Your task to perform on an android device: turn pop-ups off in chrome Image 0: 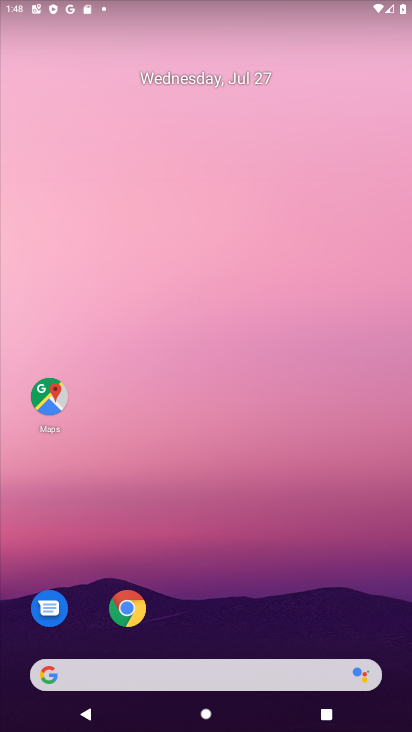
Step 0: click (124, 614)
Your task to perform on an android device: turn pop-ups off in chrome Image 1: 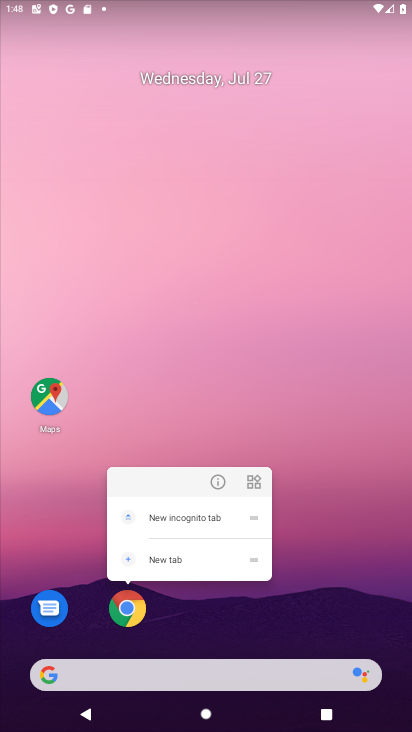
Step 1: click (124, 613)
Your task to perform on an android device: turn pop-ups off in chrome Image 2: 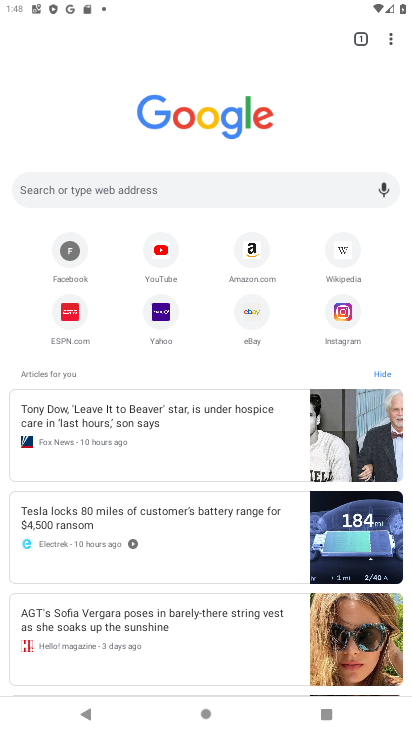
Step 2: click (390, 36)
Your task to perform on an android device: turn pop-ups off in chrome Image 3: 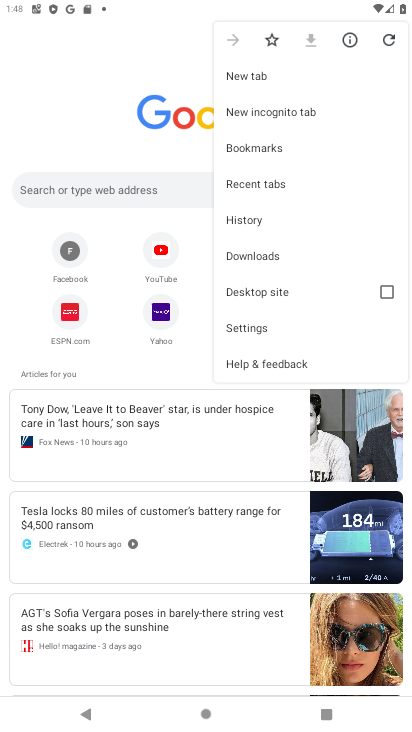
Step 3: click (256, 327)
Your task to perform on an android device: turn pop-ups off in chrome Image 4: 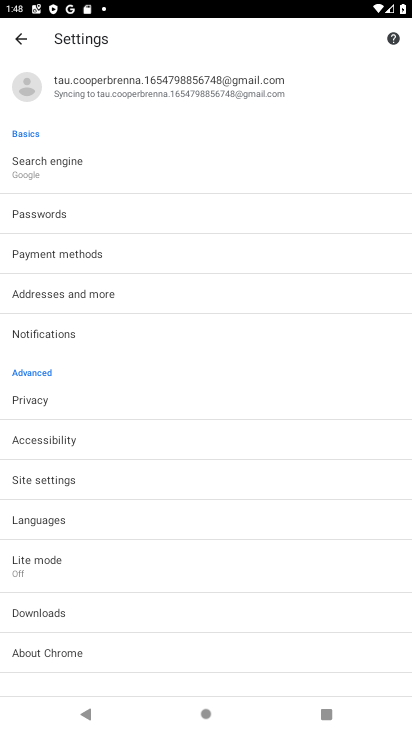
Step 4: click (72, 488)
Your task to perform on an android device: turn pop-ups off in chrome Image 5: 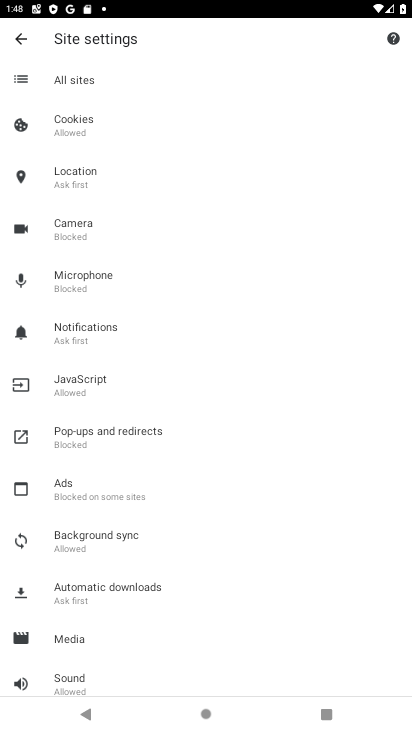
Step 5: click (85, 442)
Your task to perform on an android device: turn pop-ups off in chrome Image 6: 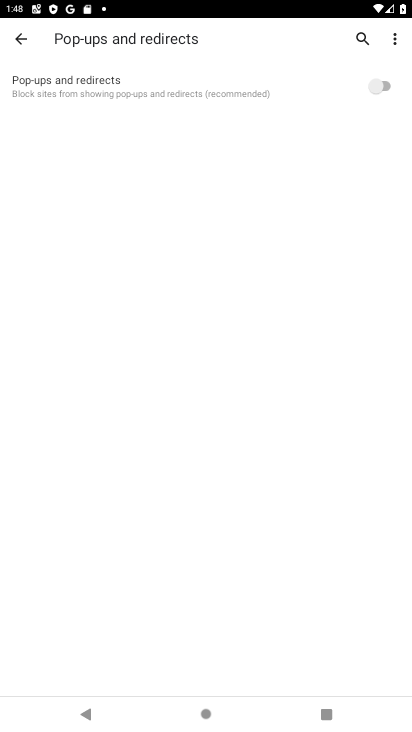
Step 6: click (370, 87)
Your task to perform on an android device: turn pop-ups off in chrome Image 7: 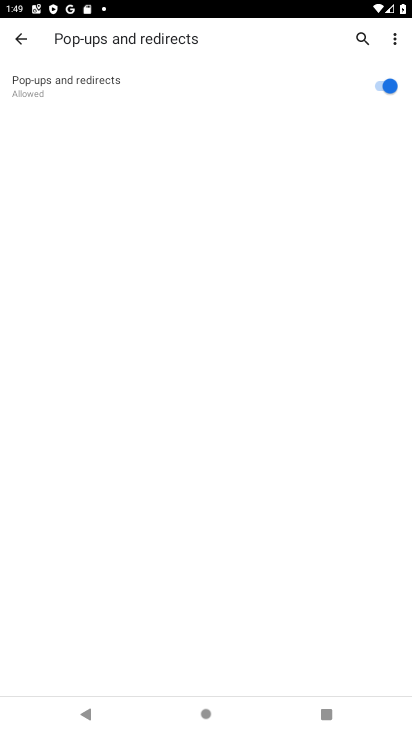
Step 7: task complete